Your task to perform on an android device: Open Maps and search for coffee Image 0: 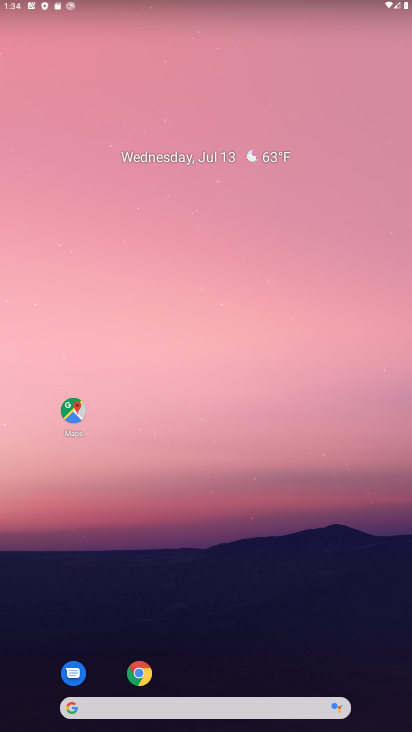
Step 0: drag from (246, 677) to (235, 333)
Your task to perform on an android device: Open Maps and search for coffee Image 1: 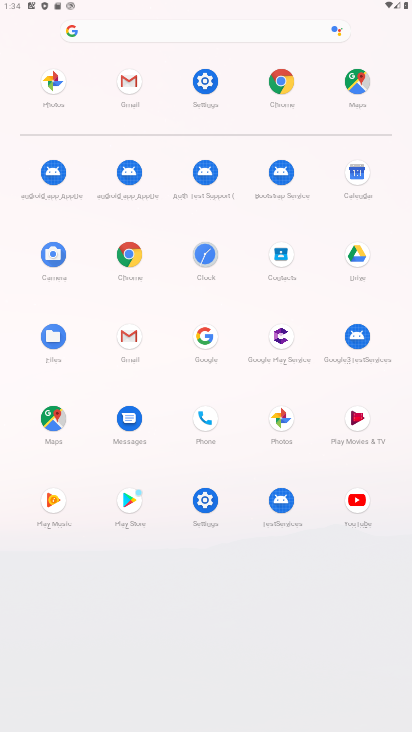
Step 1: click (366, 79)
Your task to perform on an android device: Open Maps and search for coffee Image 2: 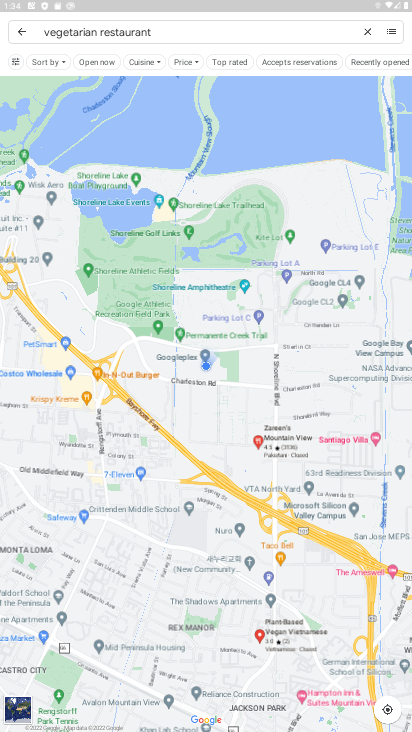
Step 2: click (367, 32)
Your task to perform on an android device: Open Maps and search for coffee Image 3: 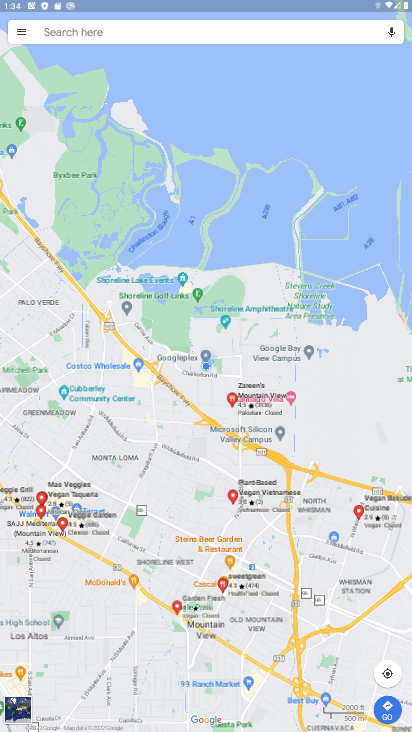
Step 3: click (194, 26)
Your task to perform on an android device: Open Maps and search for coffee Image 4: 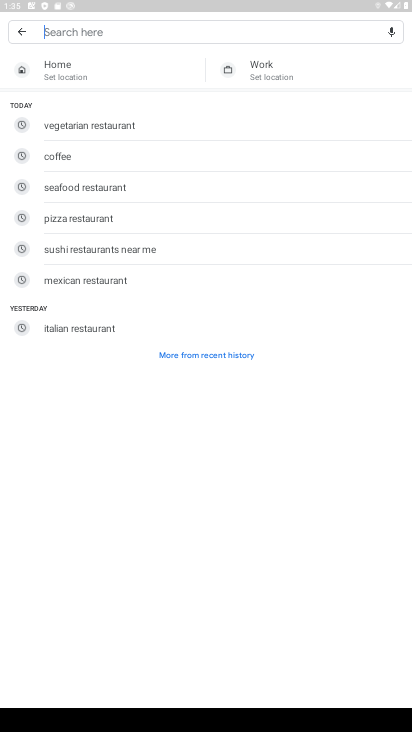
Step 4: click (93, 153)
Your task to perform on an android device: Open Maps and search for coffee Image 5: 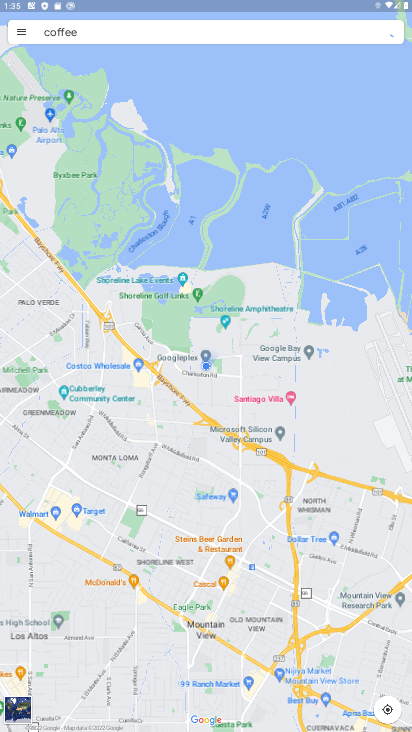
Step 5: task complete